Your task to perform on an android device: Open Reddit.com Image 0: 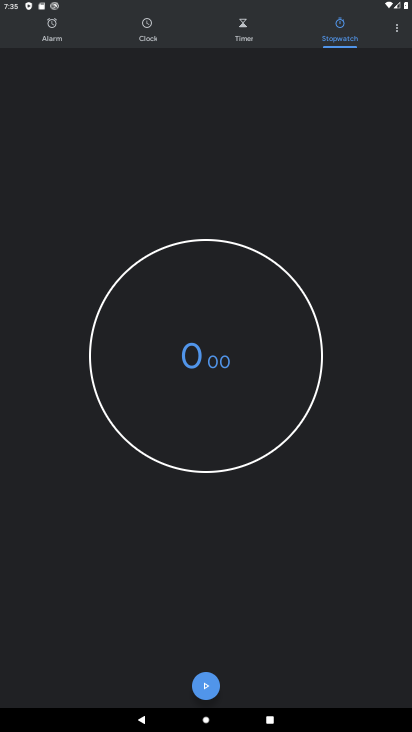
Step 0: press home button
Your task to perform on an android device: Open Reddit.com Image 1: 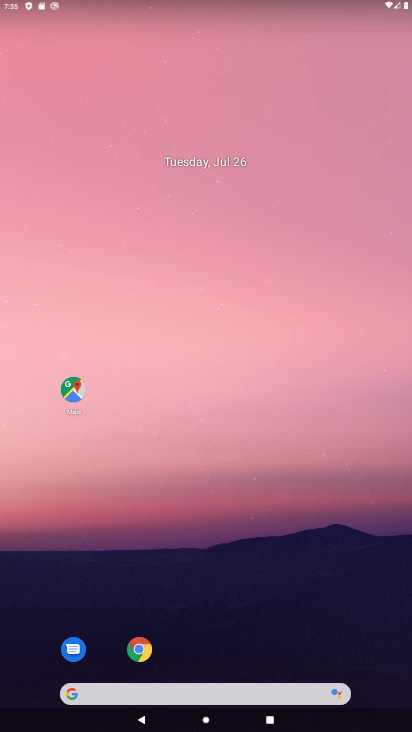
Step 1: click (132, 658)
Your task to perform on an android device: Open Reddit.com Image 2: 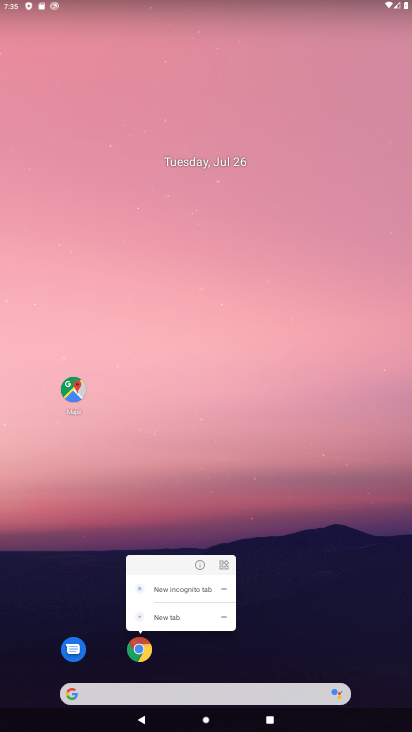
Step 2: click (132, 658)
Your task to perform on an android device: Open Reddit.com Image 3: 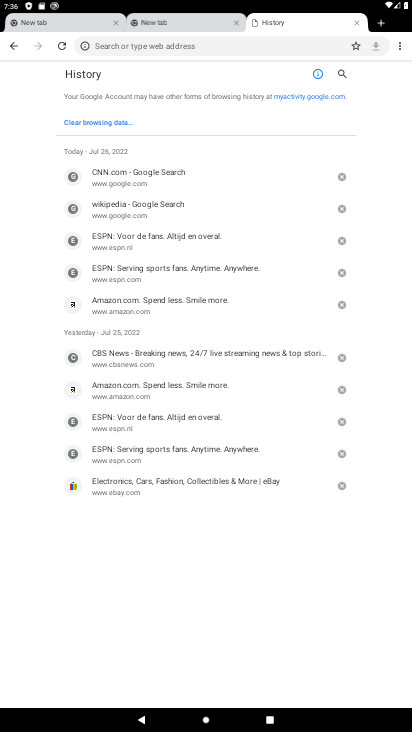
Step 3: click (380, 28)
Your task to perform on an android device: Open Reddit.com Image 4: 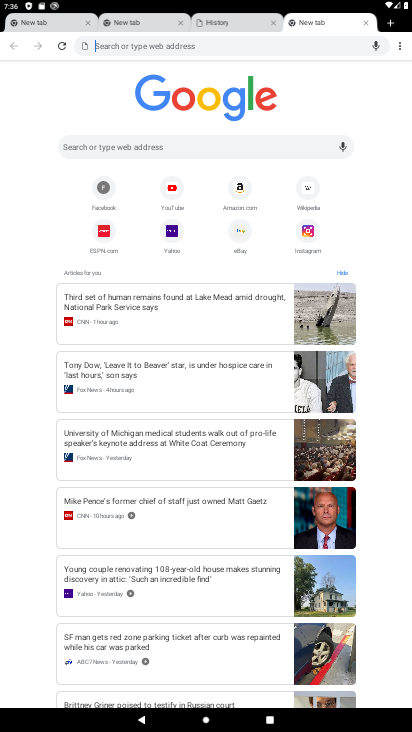
Step 4: click (230, 139)
Your task to perform on an android device: Open Reddit.com Image 5: 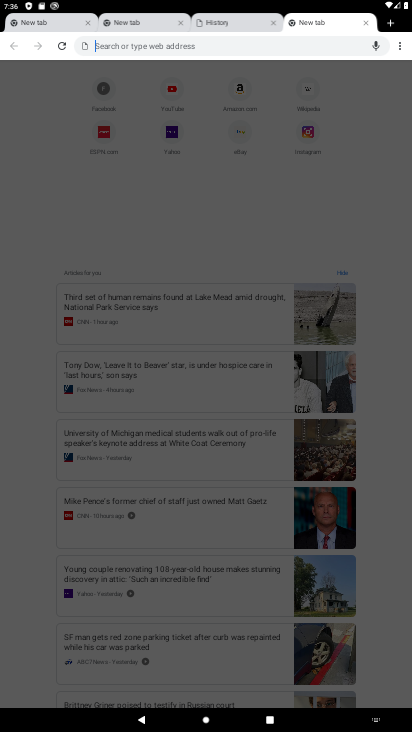
Step 5: type "Reddit.com "
Your task to perform on an android device: Open Reddit.com Image 6: 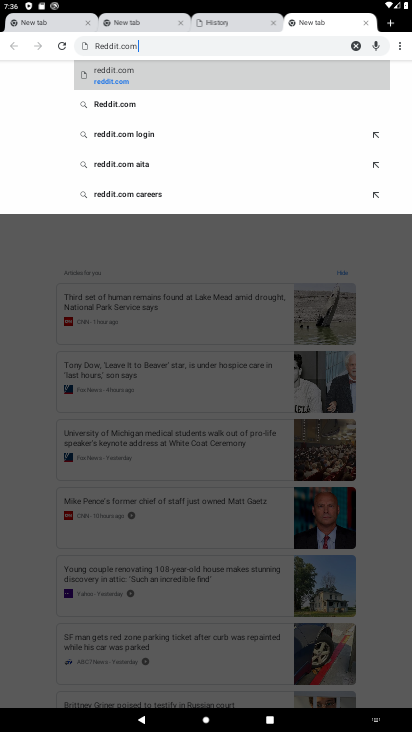
Step 6: click (212, 77)
Your task to perform on an android device: Open Reddit.com Image 7: 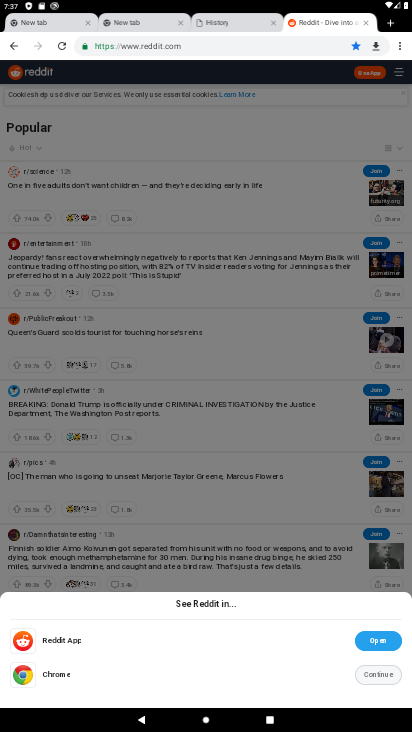
Step 7: click (376, 640)
Your task to perform on an android device: Open Reddit.com Image 8: 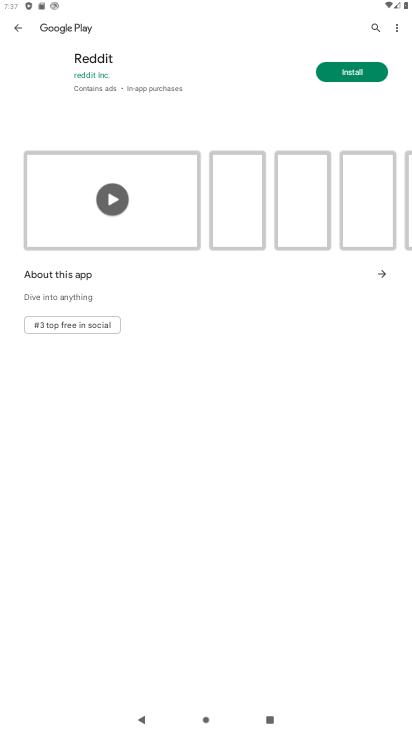
Step 8: task complete